Your task to perform on an android device: Go to ESPN.com Image 0: 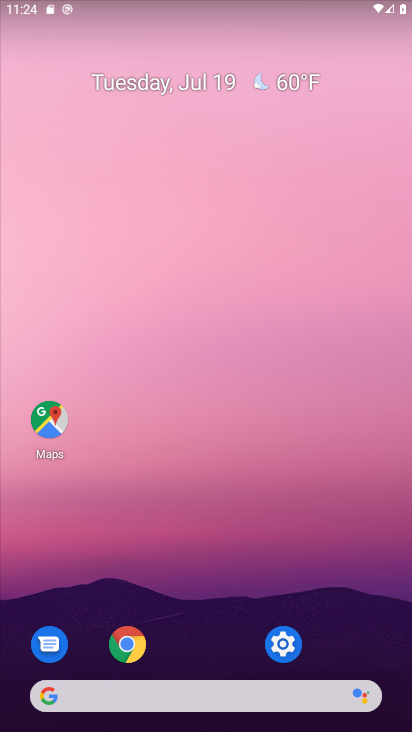
Step 0: click (136, 641)
Your task to perform on an android device: Go to ESPN.com Image 1: 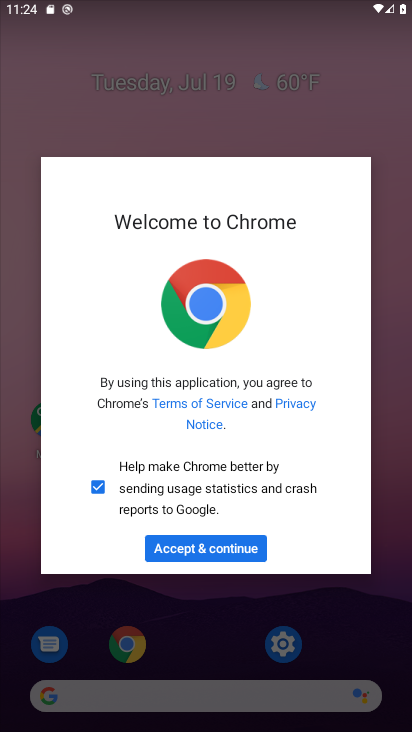
Step 1: click (218, 560)
Your task to perform on an android device: Go to ESPN.com Image 2: 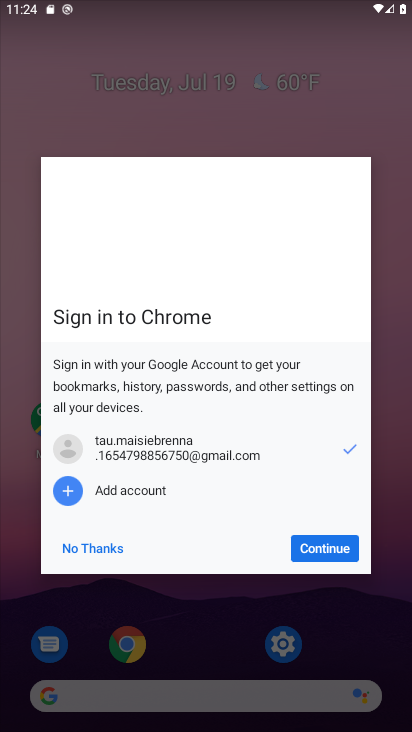
Step 2: click (321, 550)
Your task to perform on an android device: Go to ESPN.com Image 3: 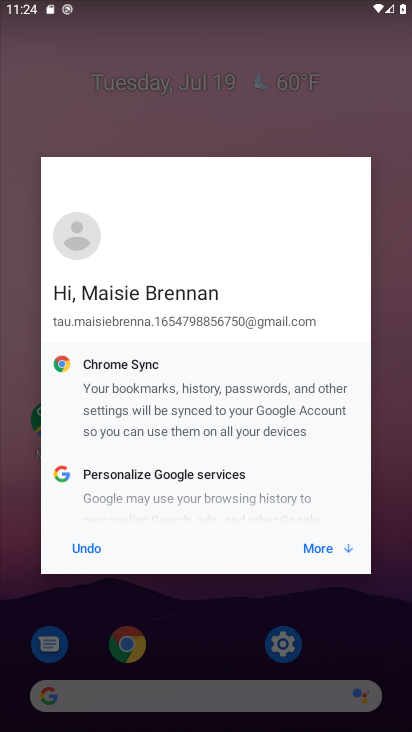
Step 3: click (348, 552)
Your task to perform on an android device: Go to ESPN.com Image 4: 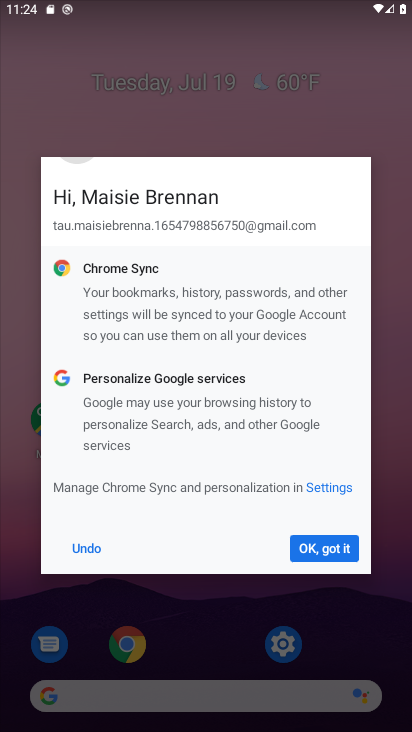
Step 4: click (323, 542)
Your task to perform on an android device: Go to ESPN.com Image 5: 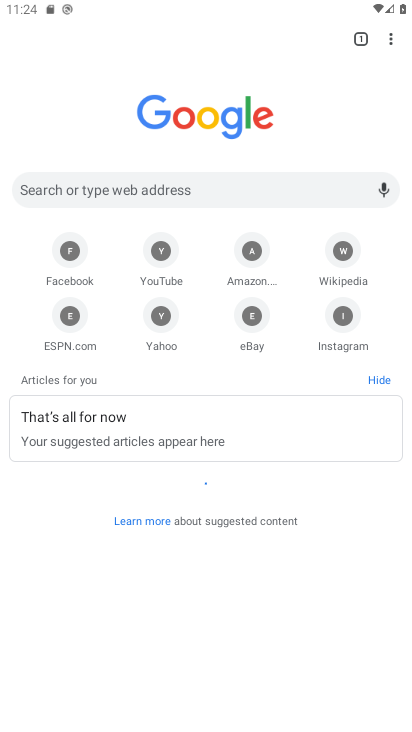
Step 5: click (69, 324)
Your task to perform on an android device: Go to ESPN.com Image 6: 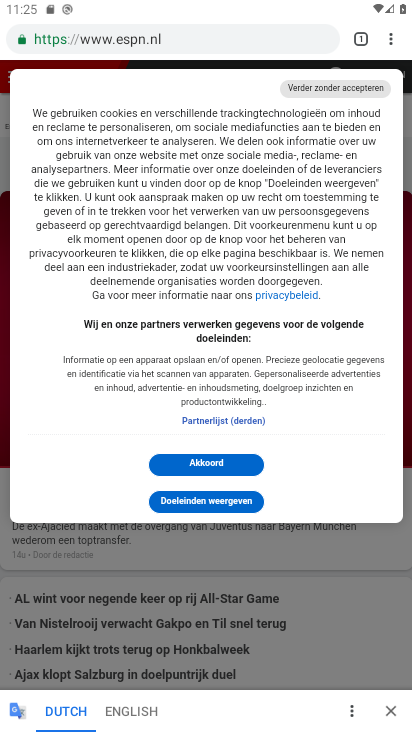
Step 6: click (184, 465)
Your task to perform on an android device: Go to ESPN.com Image 7: 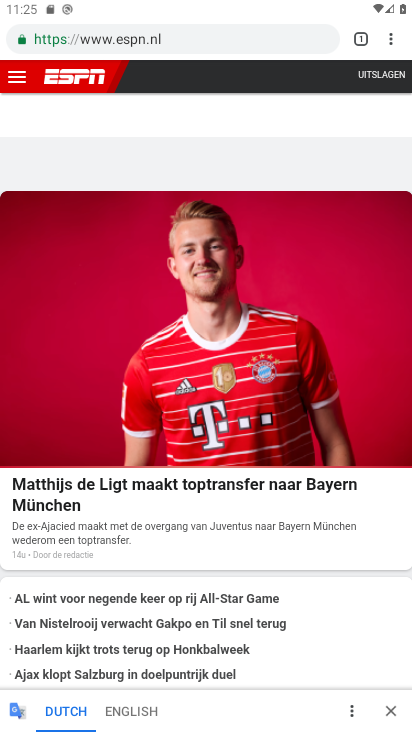
Step 7: task complete